Your task to perform on an android device: change the clock style Image 0: 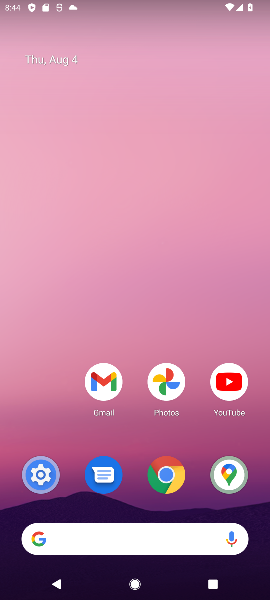
Step 0: drag from (131, 504) to (150, 193)
Your task to perform on an android device: change the clock style Image 1: 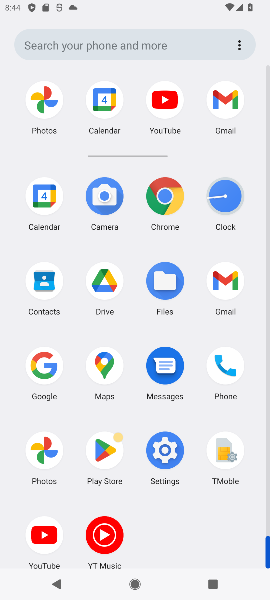
Step 1: drag from (124, 516) to (158, 137)
Your task to perform on an android device: change the clock style Image 2: 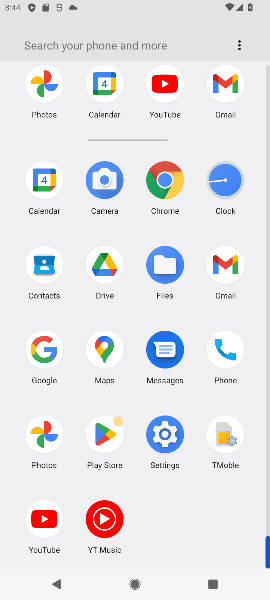
Step 2: drag from (134, 483) to (138, 102)
Your task to perform on an android device: change the clock style Image 3: 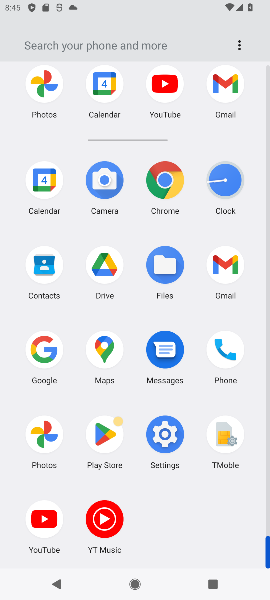
Step 3: drag from (152, 500) to (151, 383)
Your task to perform on an android device: change the clock style Image 4: 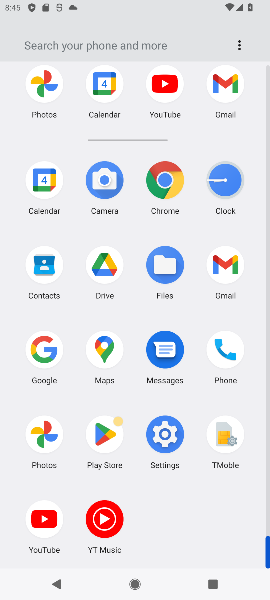
Step 4: drag from (130, 502) to (204, 322)
Your task to perform on an android device: change the clock style Image 5: 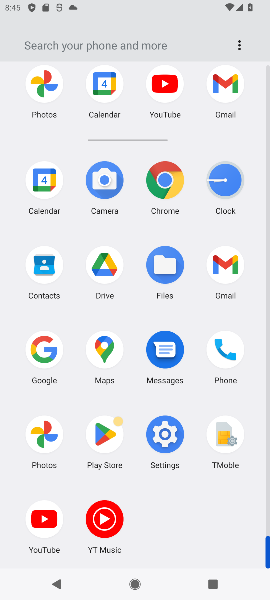
Step 5: drag from (156, 539) to (188, 243)
Your task to perform on an android device: change the clock style Image 6: 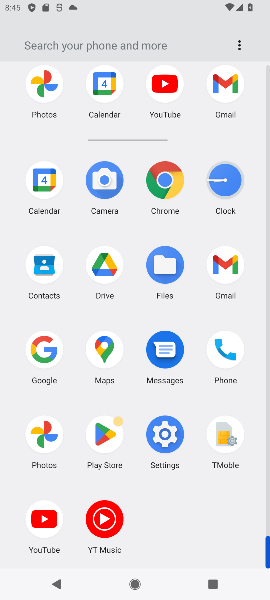
Step 6: drag from (155, 530) to (170, 254)
Your task to perform on an android device: change the clock style Image 7: 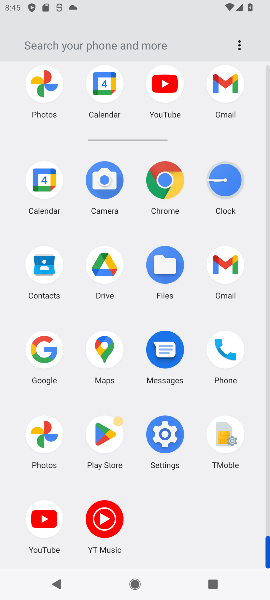
Step 7: click (159, 444)
Your task to perform on an android device: change the clock style Image 8: 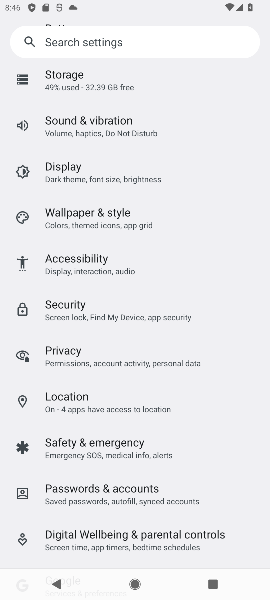
Step 8: drag from (132, 201) to (256, 192)
Your task to perform on an android device: change the clock style Image 9: 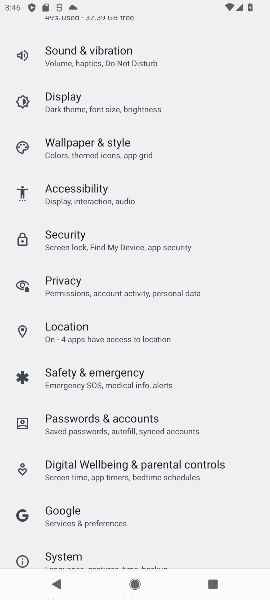
Step 9: press home button
Your task to perform on an android device: change the clock style Image 10: 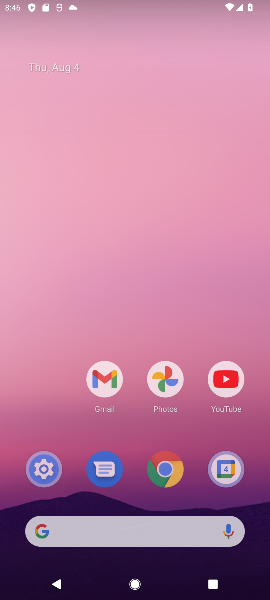
Step 10: drag from (123, 515) to (103, 201)
Your task to perform on an android device: change the clock style Image 11: 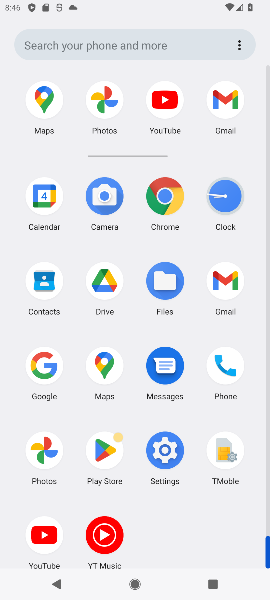
Step 11: click (222, 205)
Your task to perform on an android device: change the clock style Image 12: 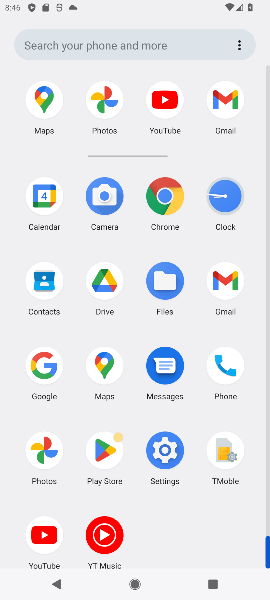
Step 12: click (222, 205)
Your task to perform on an android device: change the clock style Image 13: 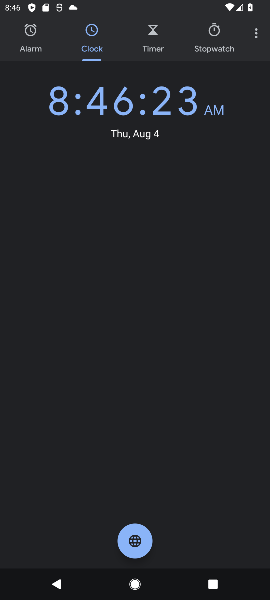
Step 13: drag from (259, 31) to (184, 62)
Your task to perform on an android device: change the clock style Image 14: 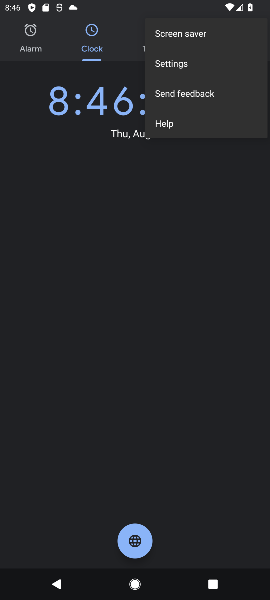
Step 14: click (184, 62)
Your task to perform on an android device: change the clock style Image 15: 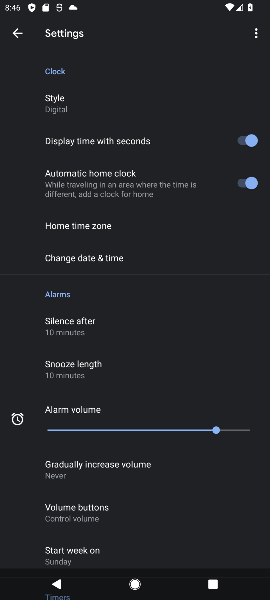
Step 15: click (86, 99)
Your task to perform on an android device: change the clock style Image 16: 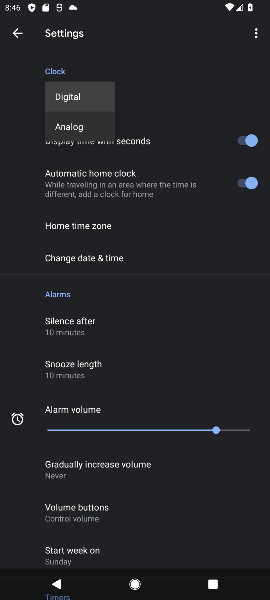
Step 16: click (80, 132)
Your task to perform on an android device: change the clock style Image 17: 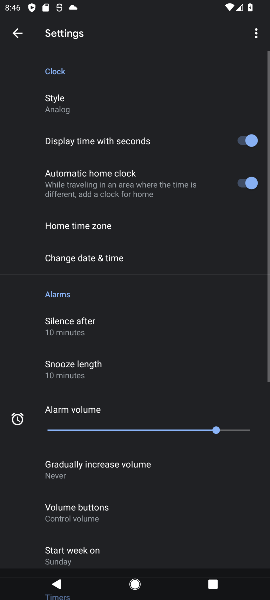
Step 17: task complete